Your task to perform on an android device: Clear the cart on bestbuy. Image 0: 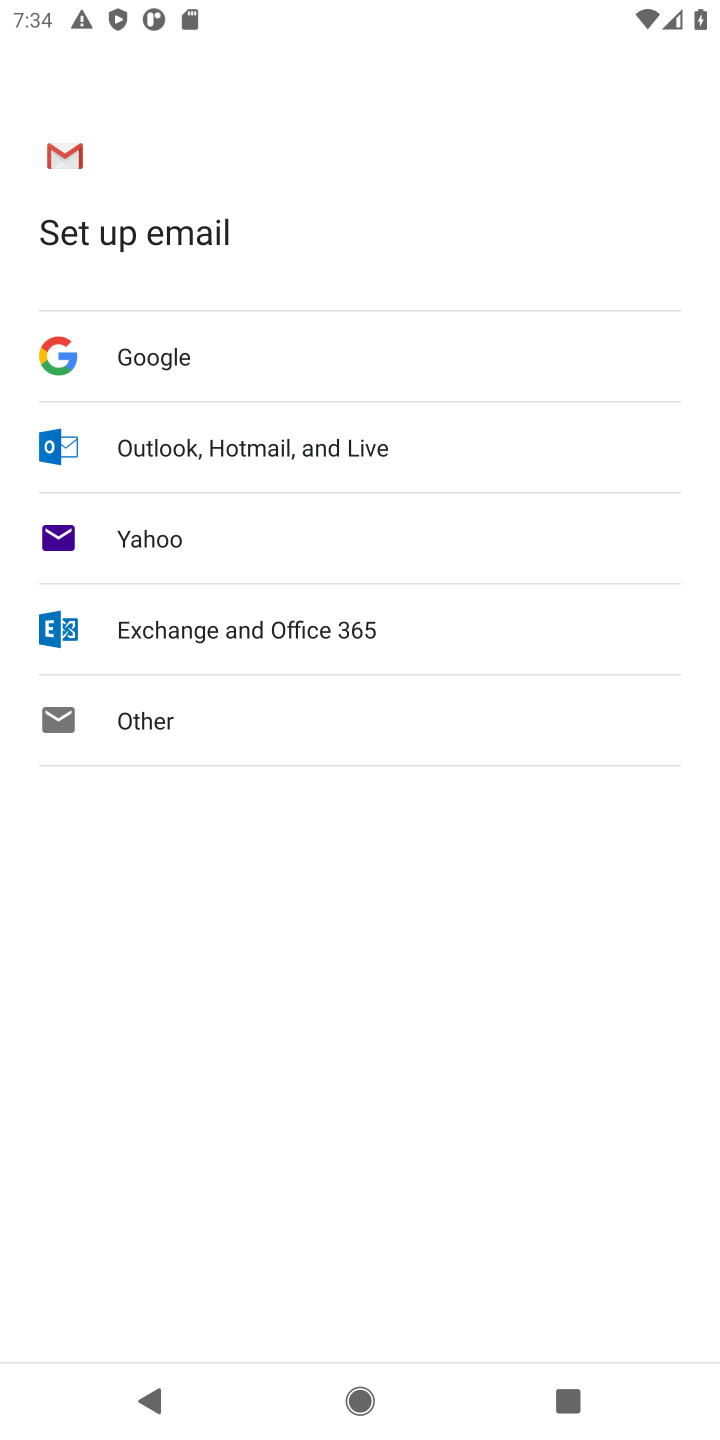
Step 0: press home button
Your task to perform on an android device: Clear the cart on bestbuy. Image 1: 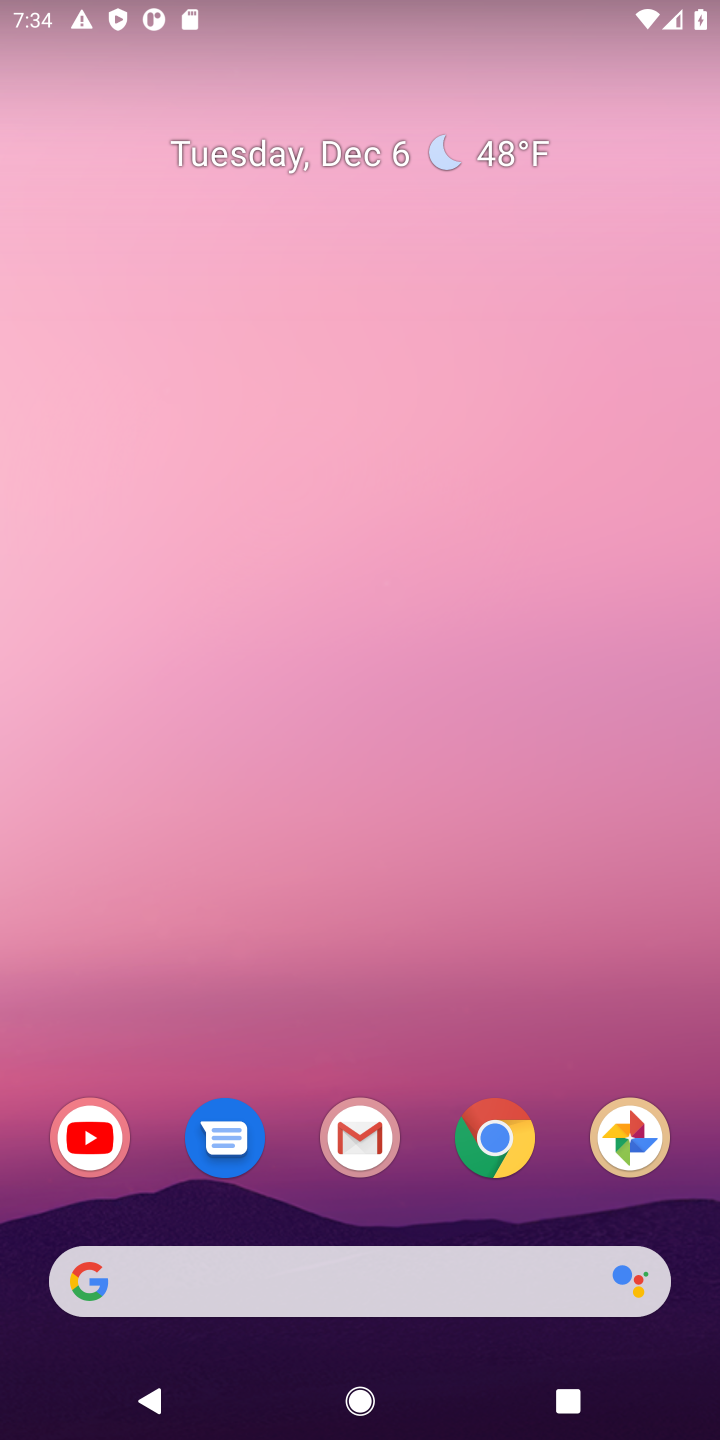
Step 1: click (511, 1131)
Your task to perform on an android device: Clear the cart on bestbuy. Image 2: 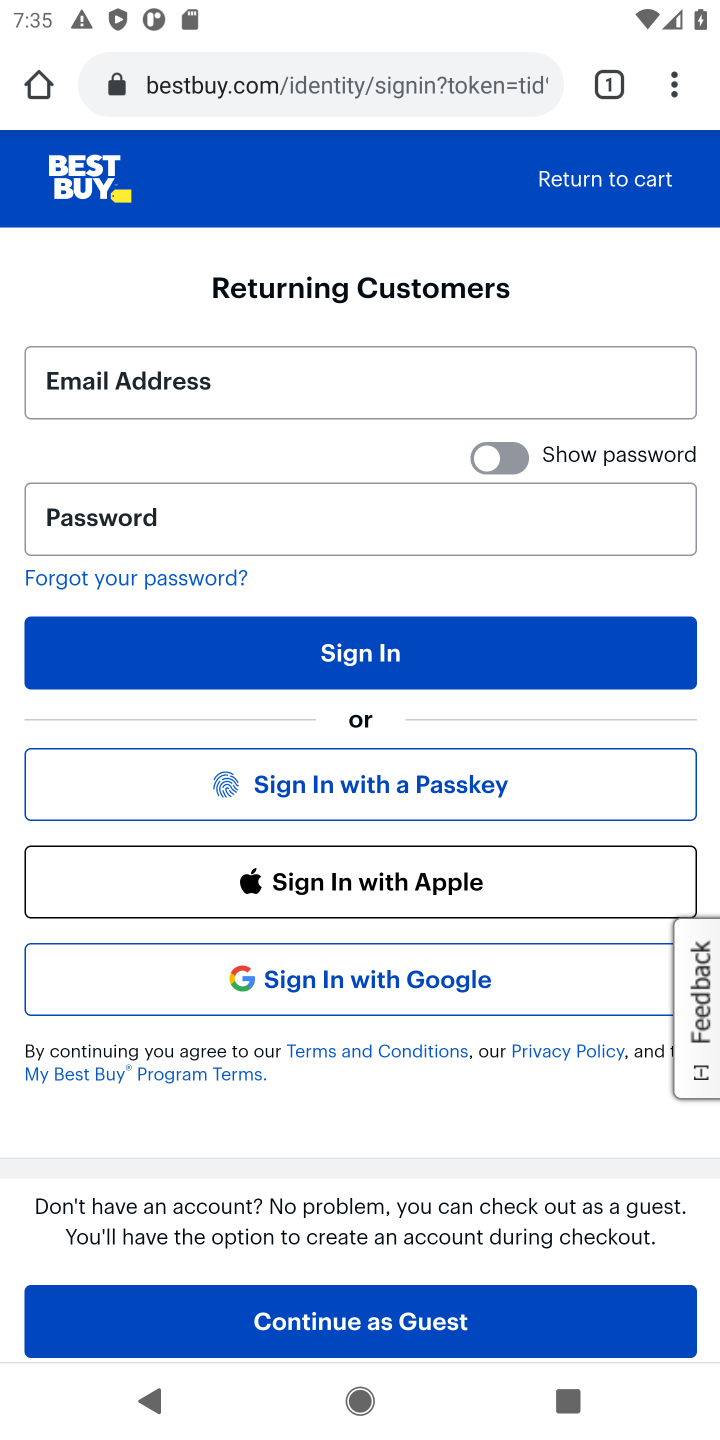
Step 2: click (596, 183)
Your task to perform on an android device: Clear the cart on bestbuy. Image 3: 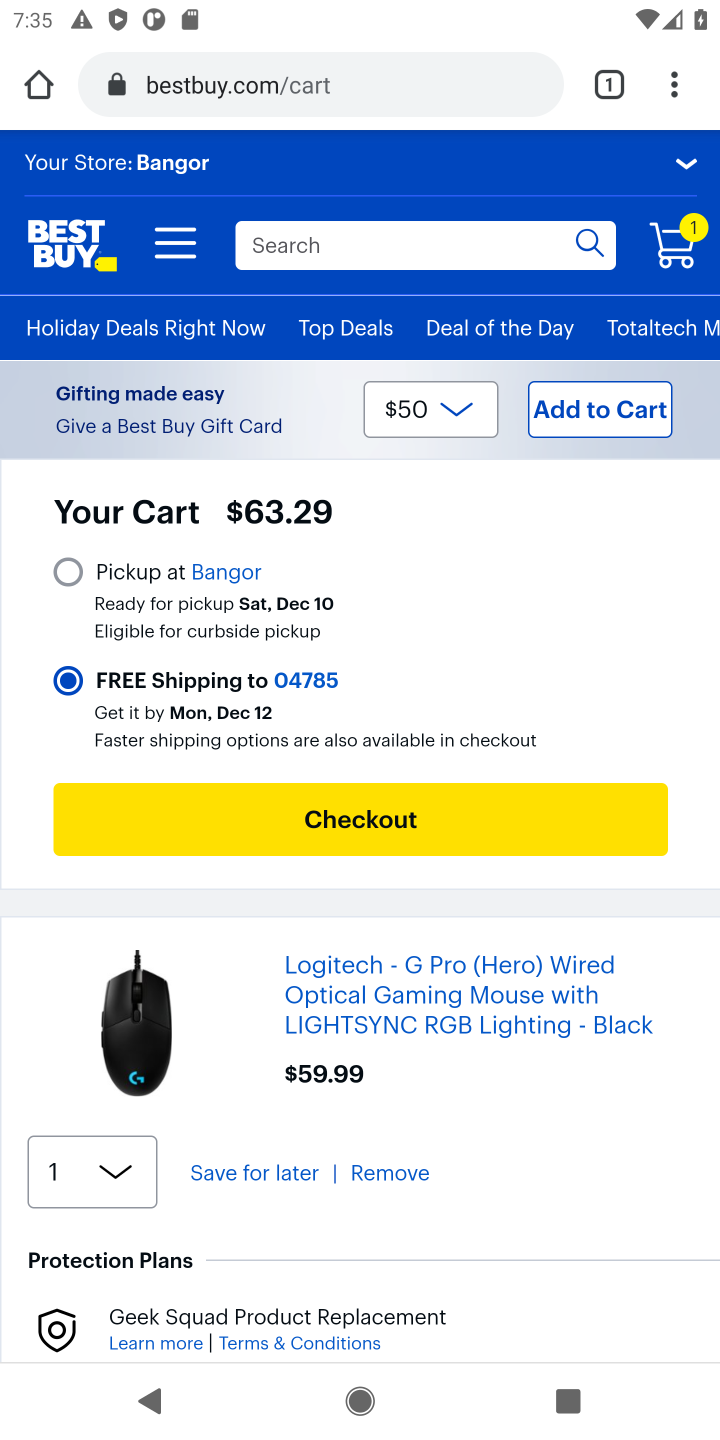
Step 3: click (376, 1174)
Your task to perform on an android device: Clear the cart on bestbuy. Image 4: 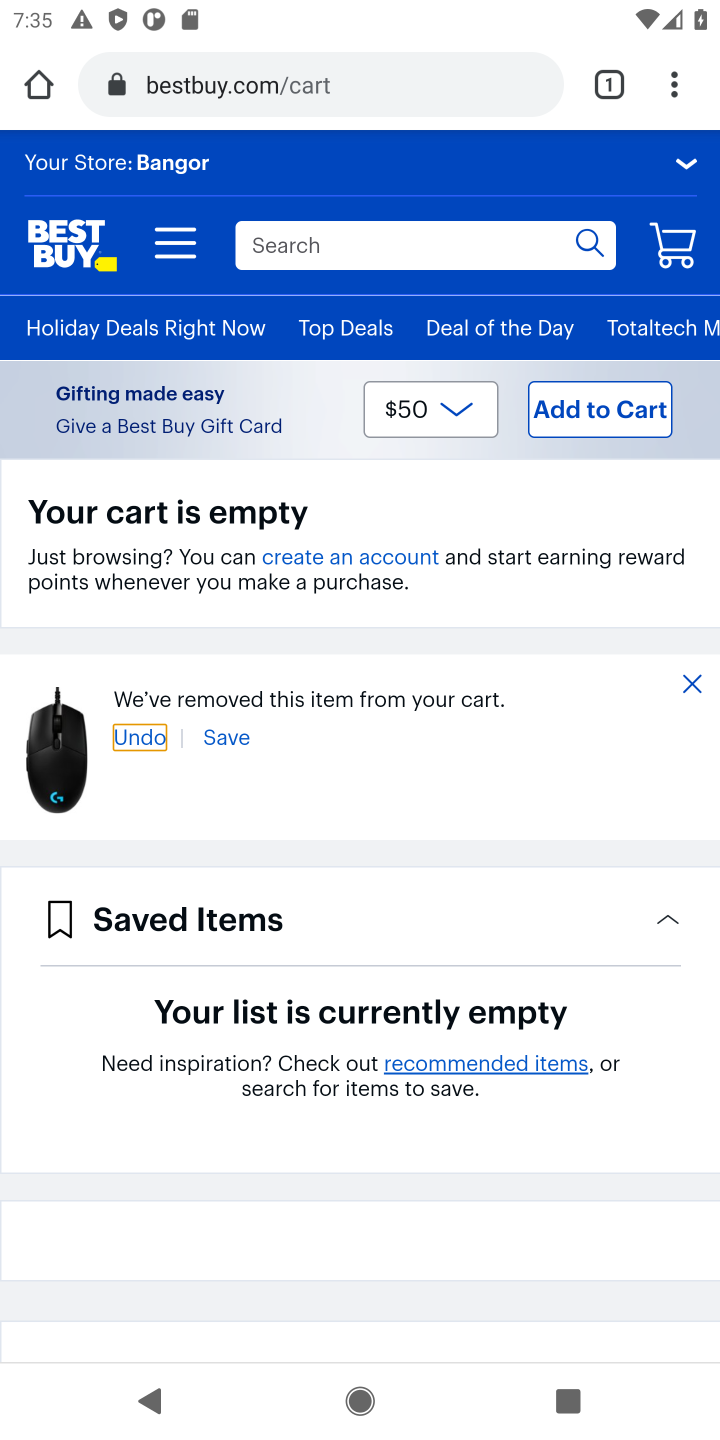
Step 4: task complete